Your task to perform on an android device: check data usage Image 0: 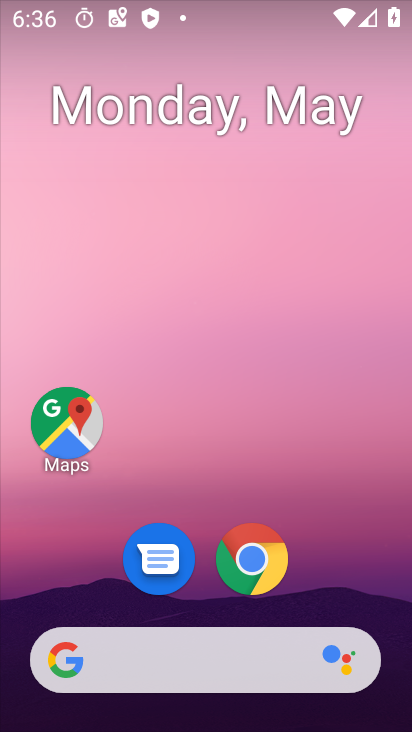
Step 0: drag from (388, 613) to (275, 32)
Your task to perform on an android device: check data usage Image 1: 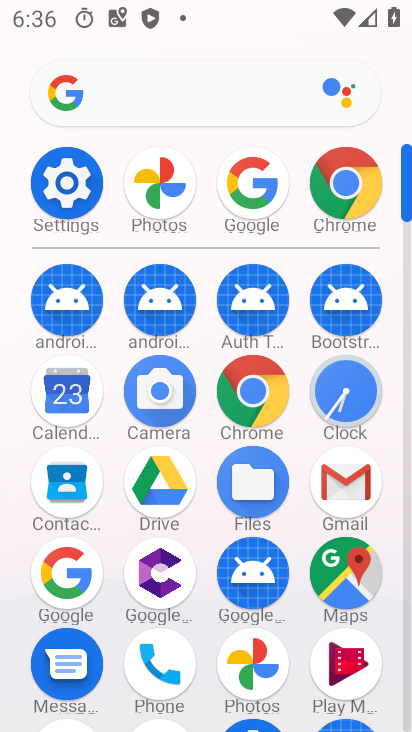
Step 1: click (85, 184)
Your task to perform on an android device: check data usage Image 2: 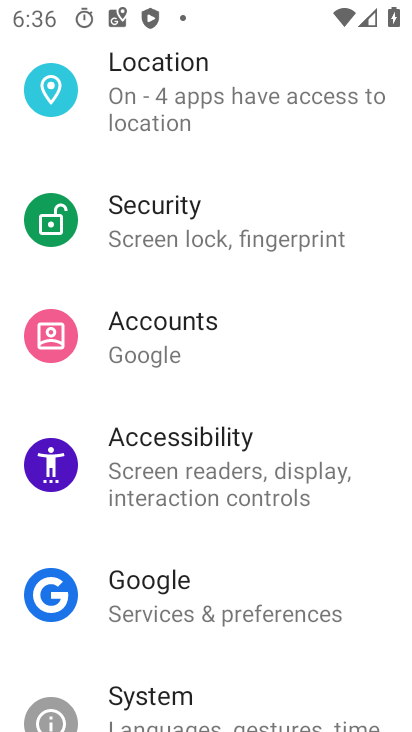
Step 2: drag from (149, 151) to (210, 608)
Your task to perform on an android device: check data usage Image 3: 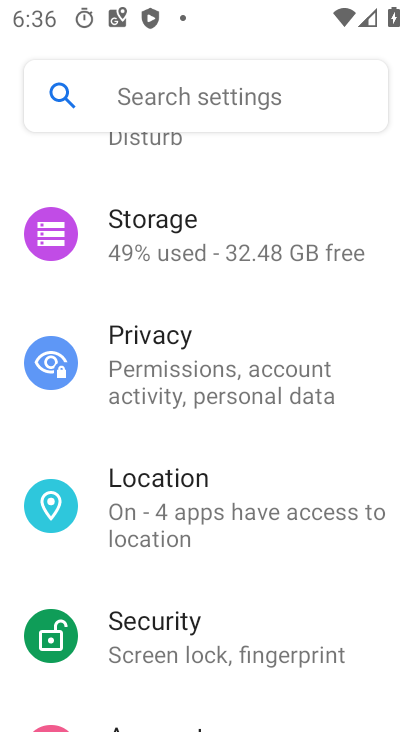
Step 3: drag from (202, 263) to (241, 680)
Your task to perform on an android device: check data usage Image 4: 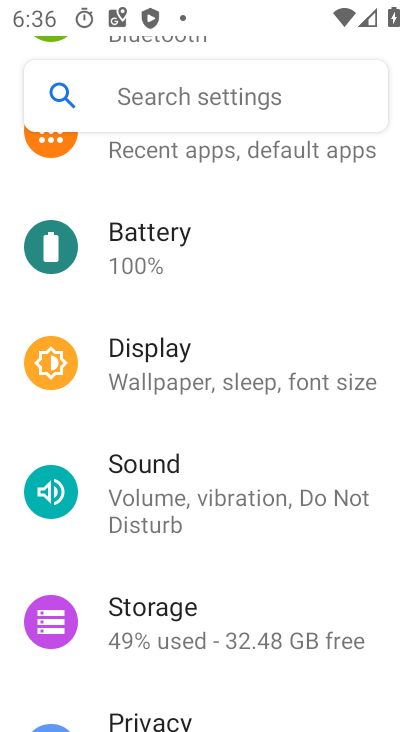
Step 4: drag from (207, 217) to (232, 688)
Your task to perform on an android device: check data usage Image 5: 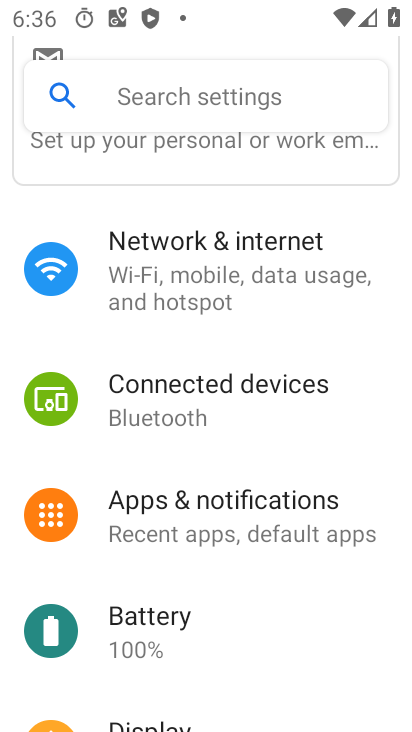
Step 5: click (190, 312)
Your task to perform on an android device: check data usage Image 6: 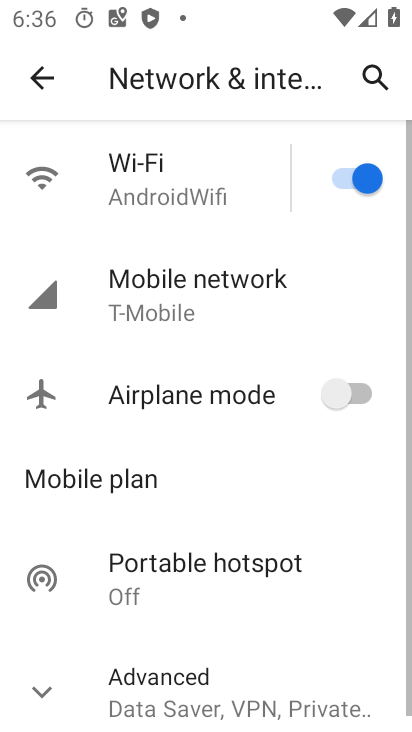
Step 6: click (190, 312)
Your task to perform on an android device: check data usage Image 7: 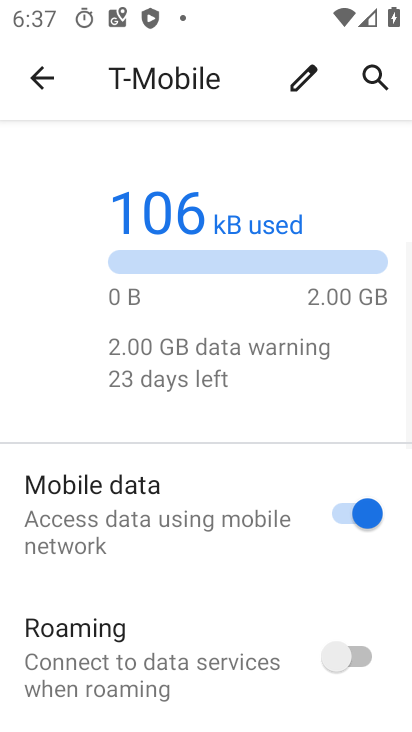
Step 7: drag from (134, 619) to (188, 101)
Your task to perform on an android device: check data usage Image 8: 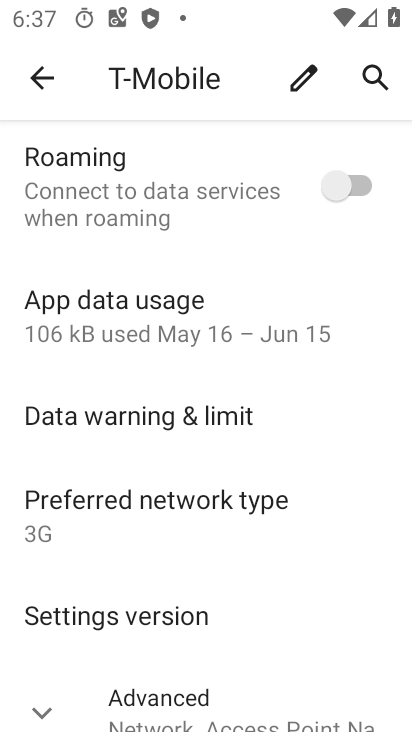
Step 8: click (159, 339)
Your task to perform on an android device: check data usage Image 9: 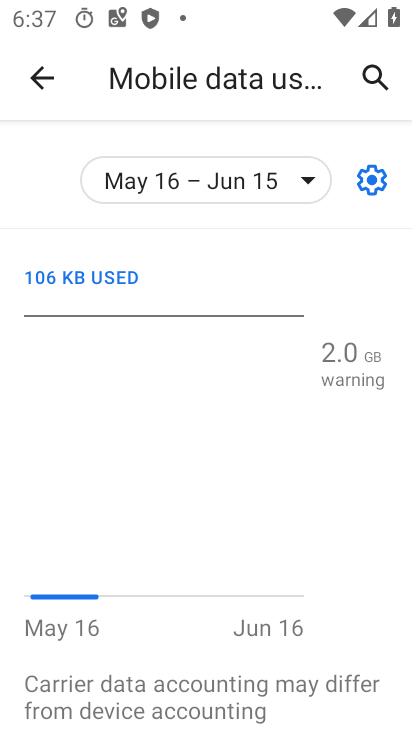
Step 9: task complete